Your task to perform on an android device: Turn off the flashlight Image 0: 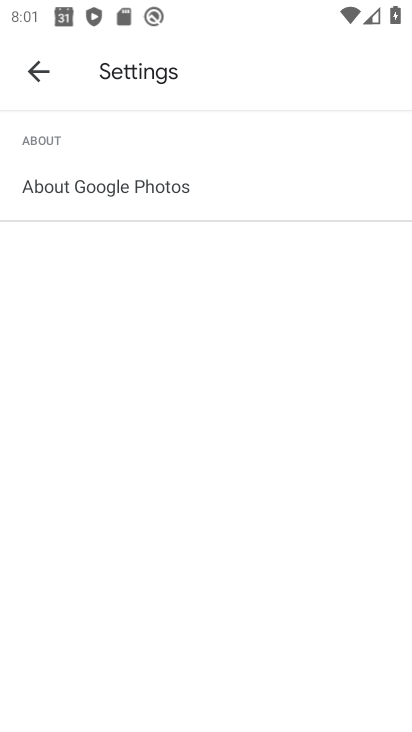
Step 0: press home button
Your task to perform on an android device: Turn off the flashlight Image 1: 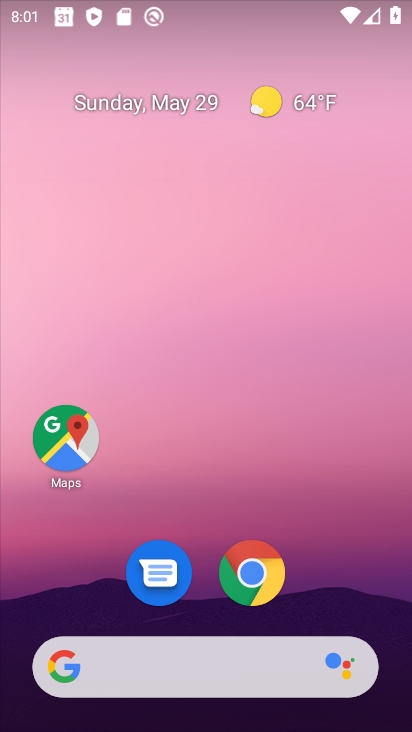
Step 1: task complete